Your task to perform on an android device: Open the calendar and show me this week's events? Image 0: 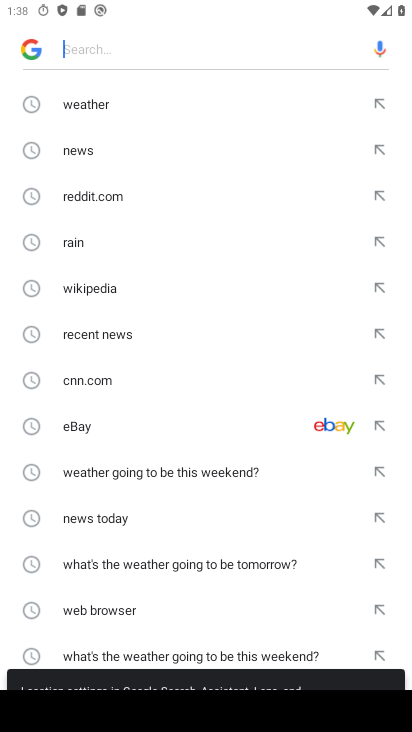
Step 0: press home button
Your task to perform on an android device: Open the calendar and show me this week's events? Image 1: 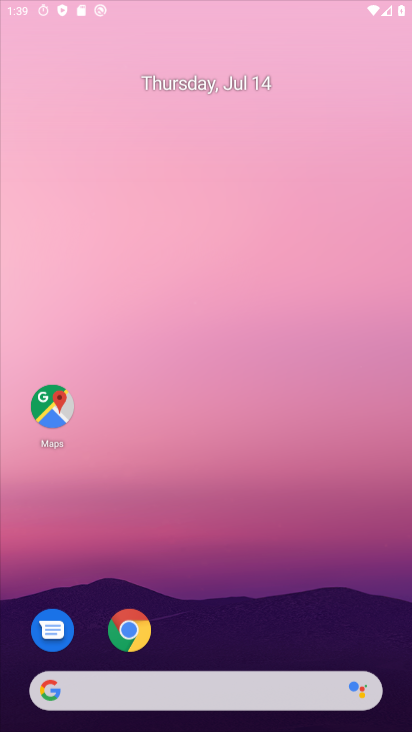
Step 1: drag from (181, 329) to (223, 5)
Your task to perform on an android device: Open the calendar and show me this week's events? Image 2: 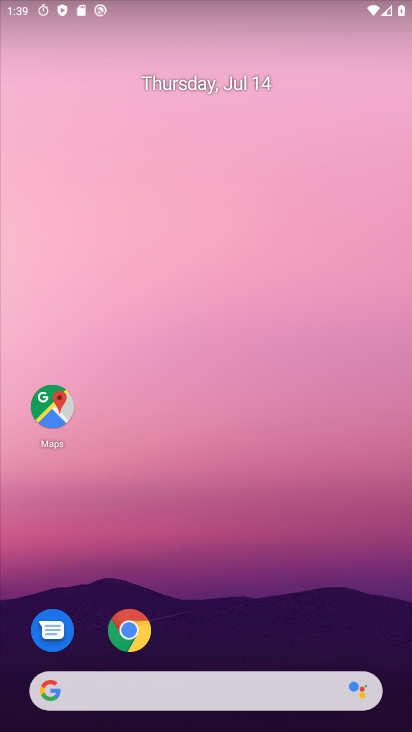
Step 2: drag from (184, 649) to (284, 177)
Your task to perform on an android device: Open the calendar and show me this week's events? Image 3: 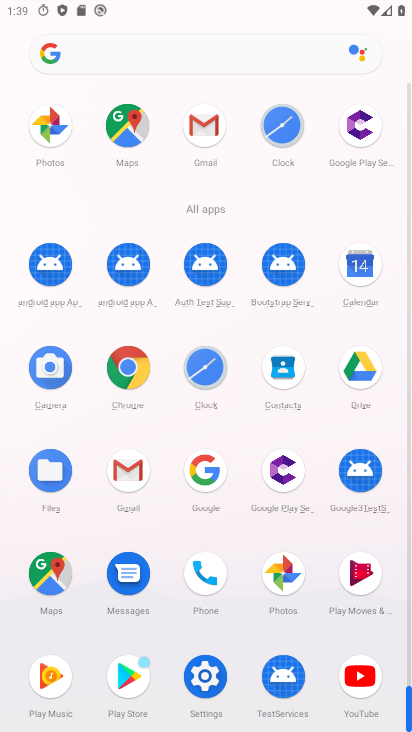
Step 3: click (356, 268)
Your task to perform on an android device: Open the calendar and show me this week's events? Image 4: 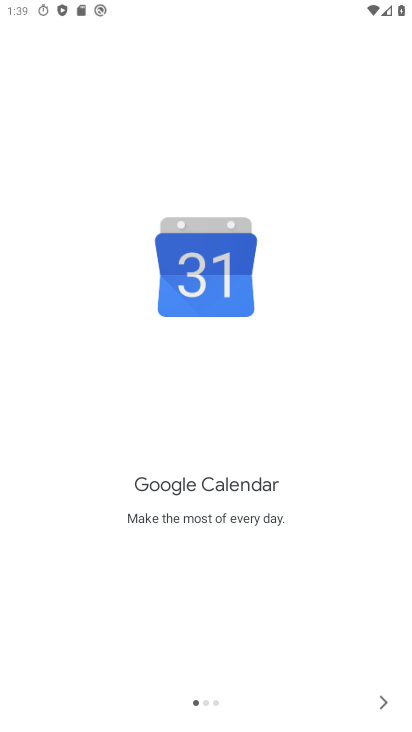
Step 4: click (380, 706)
Your task to perform on an android device: Open the calendar and show me this week's events? Image 5: 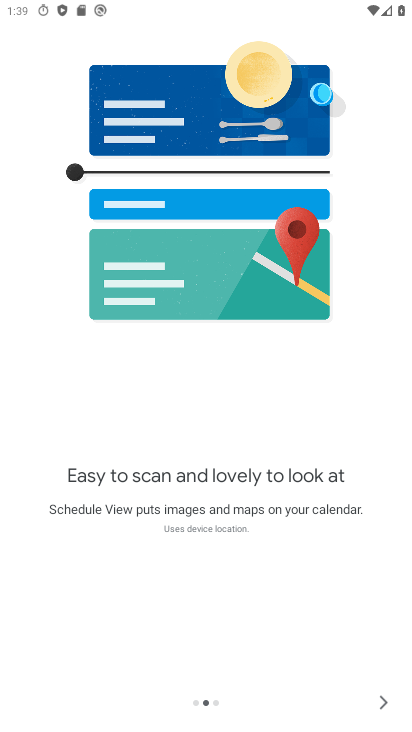
Step 5: click (384, 702)
Your task to perform on an android device: Open the calendar and show me this week's events? Image 6: 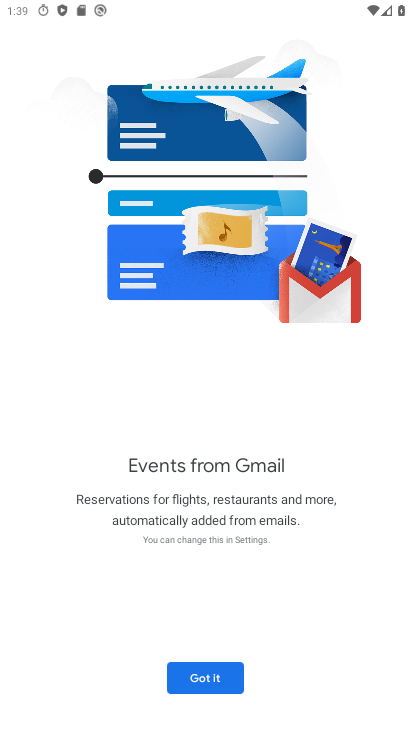
Step 6: click (202, 686)
Your task to perform on an android device: Open the calendar and show me this week's events? Image 7: 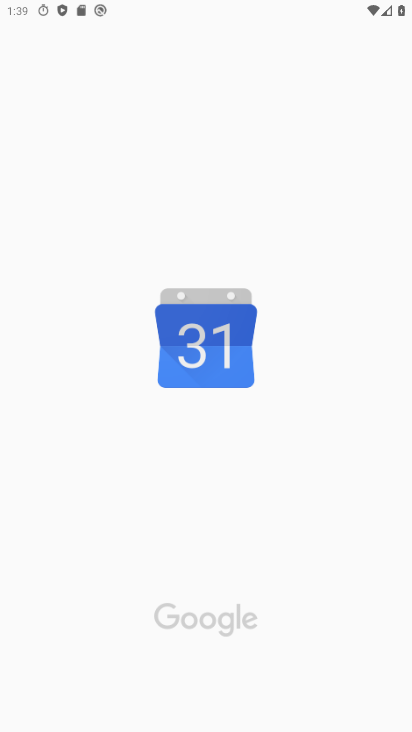
Step 7: drag from (217, 656) to (256, 367)
Your task to perform on an android device: Open the calendar and show me this week's events? Image 8: 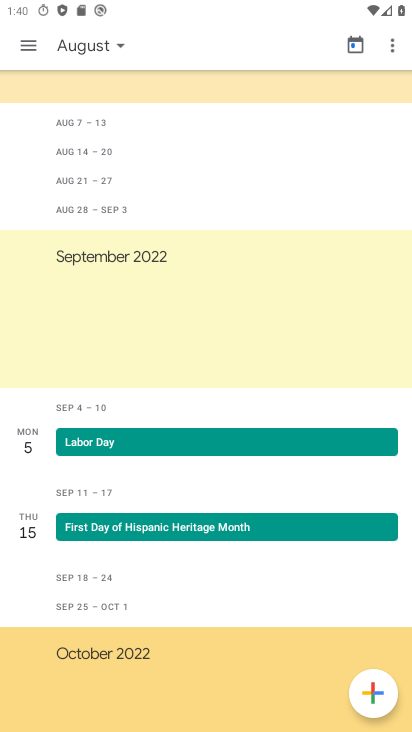
Step 8: click (90, 49)
Your task to perform on an android device: Open the calendar and show me this week's events? Image 9: 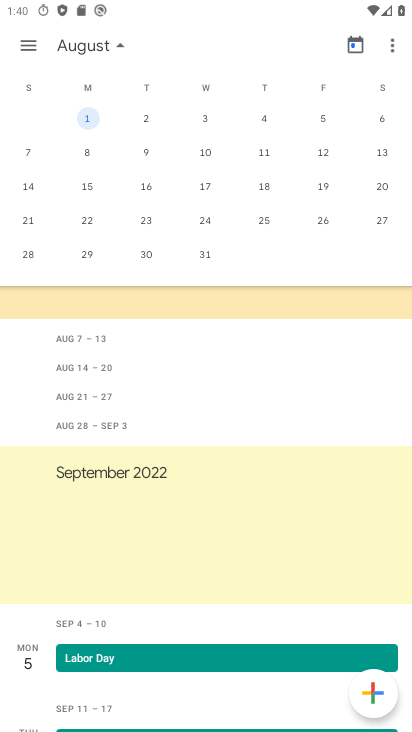
Step 9: drag from (229, 588) to (271, 285)
Your task to perform on an android device: Open the calendar and show me this week's events? Image 10: 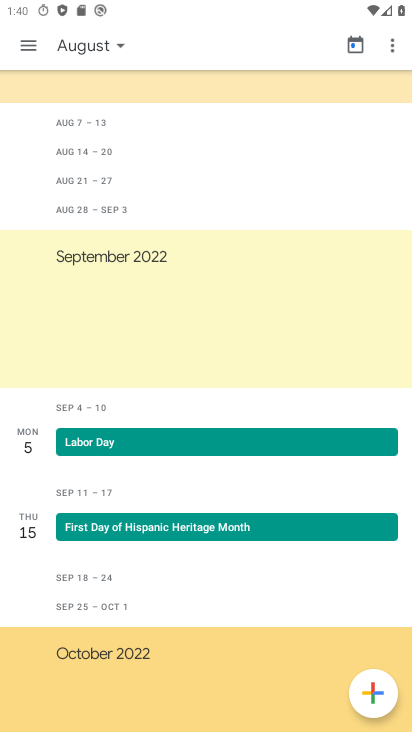
Step 10: drag from (203, 558) to (246, 55)
Your task to perform on an android device: Open the calendar and show me this week's events? Image 11: 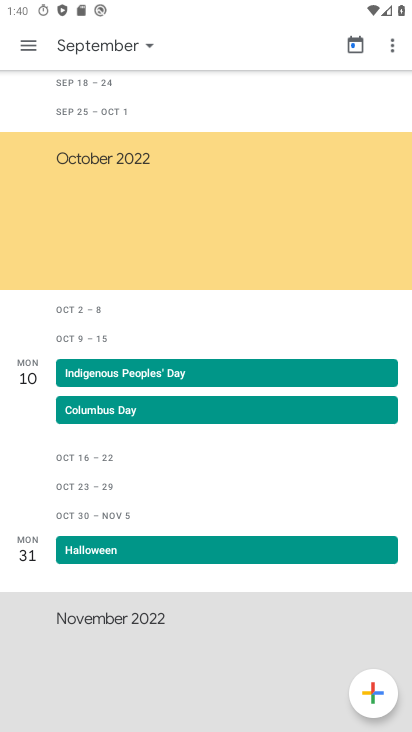
Step 11: drag from (208, 567) to (237, 363)
Your task to perform on an android device: Open the calendar and show me this week's events? Image 12: 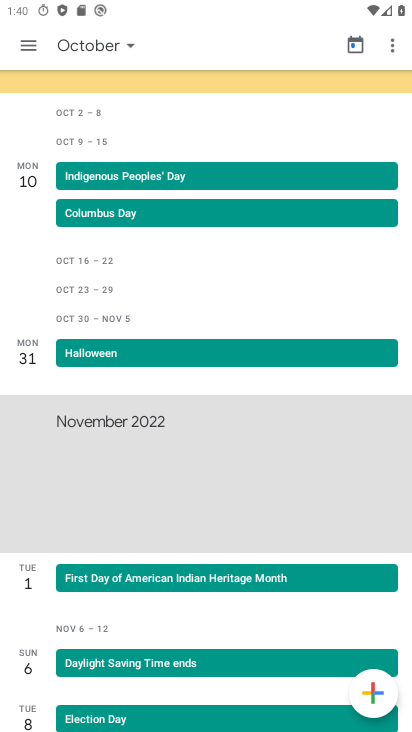
Step 12: click (352, 44)
Your task to perform on an android device: Open the calendar and show me this week's events? Image 13: 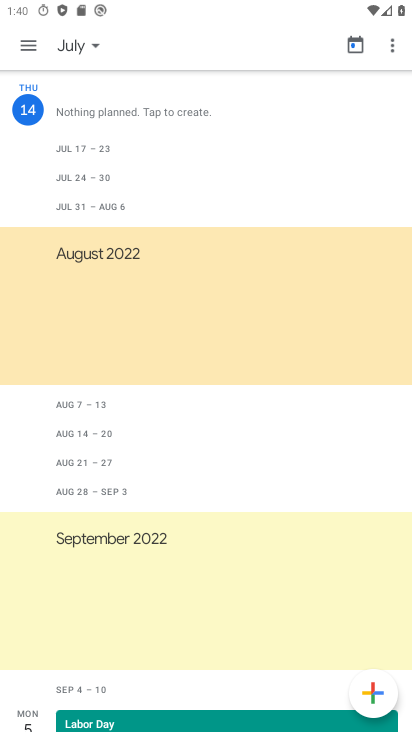
Step 13: click (89, 53)
Your task to perform on an android device: Open the calendar and show me this week's events? Image 14: 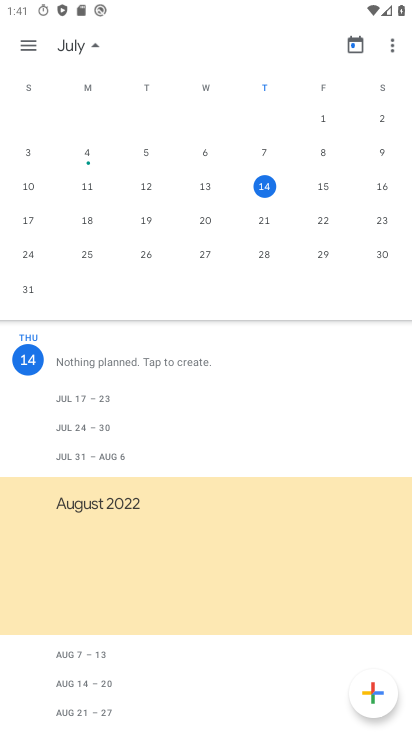
Step 14: drag from (258, 301) to (284, 122)
Your task to perform on an android device: Open the calendar and show me this week's events? Image 15: 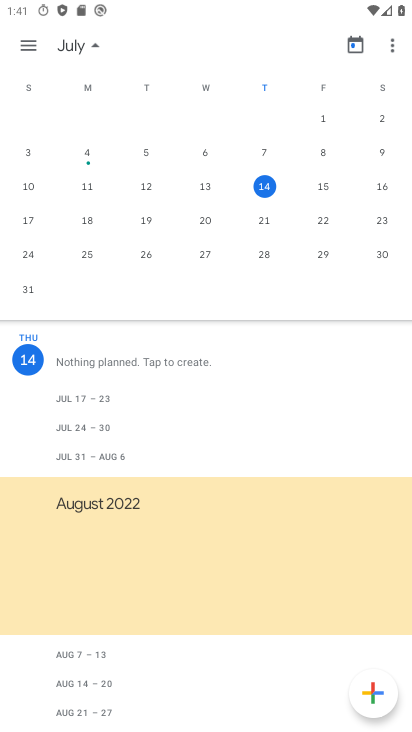
Step 15: click (320, 247)
Your task to perform on an android device: Open the calendar and show me this week's events? Image 16: 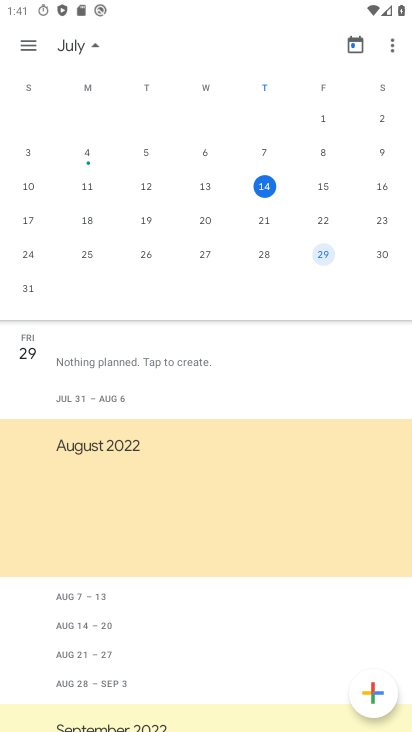
Step 16: click (387, 184)
Your task to perform on an android device: Open the calendar and show me this week's events? Image 17: 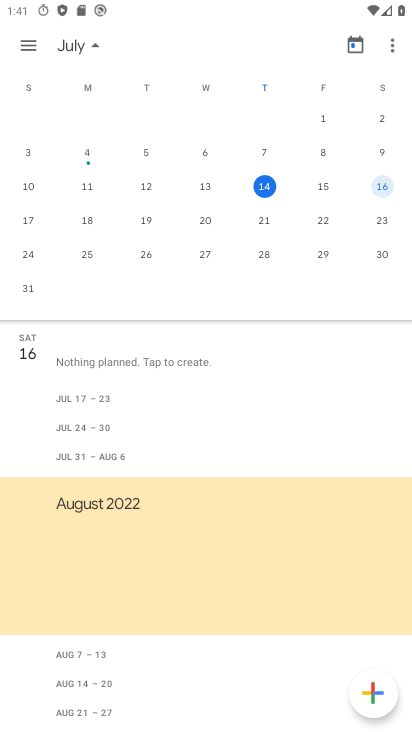
Step 17: task complete